Your task to perform on an android device: uninstall "Yahoo Mail" Image 0: 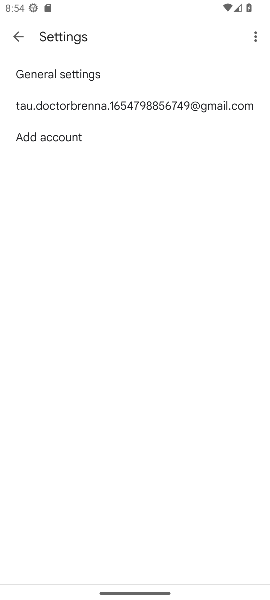
Step 0: drag from (75, 394) to (125, 179)
Your task to perform on an android device: uninstall "Yahoo Mail" Image 1: 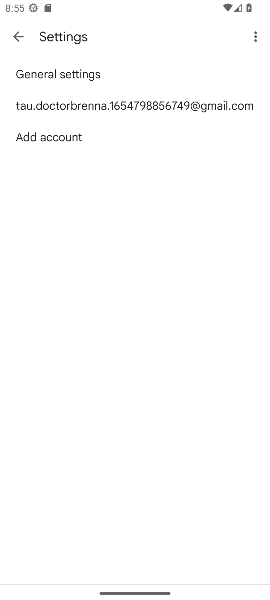
Step 1: drag from (124, 376) to (152, 493)
Your task to perform on an android device: uninstall "Yahoo Mail" Image 2: 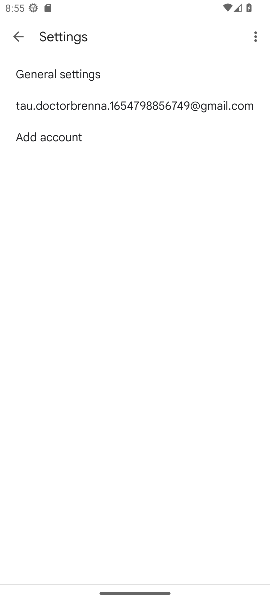
Step 2: press home button
Your task to perform on an android device: uninstall "Yahoo Mail" Image 3: 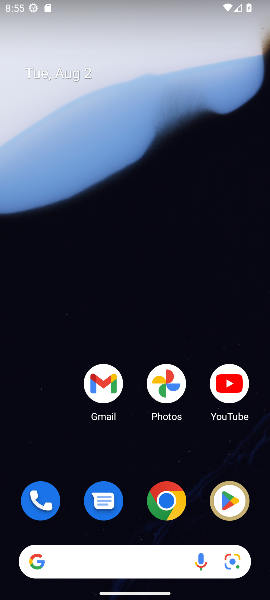
Step 3: click (232, 498)
Your task to perform on an android device: uninstall "Yahoo Mail" Image 4: 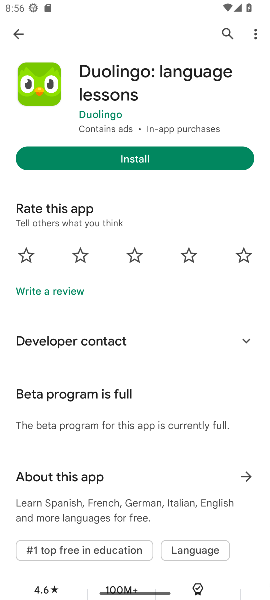
Step 4: drag from (219, 254) to (222, 329)
Your task to perform on an android device: uninstall "Yahoo Mail" Image 5: 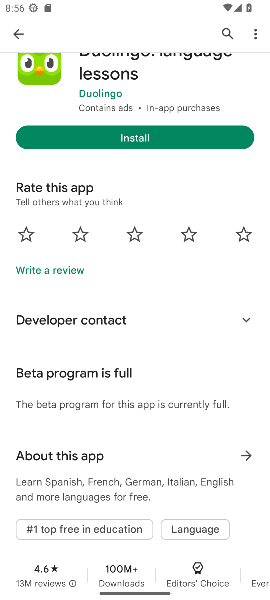
Step 5: drag from (148, 170) to (142, 597)
Your task to perform on an android device: uninstall "Yahoo Mail" Image 6: 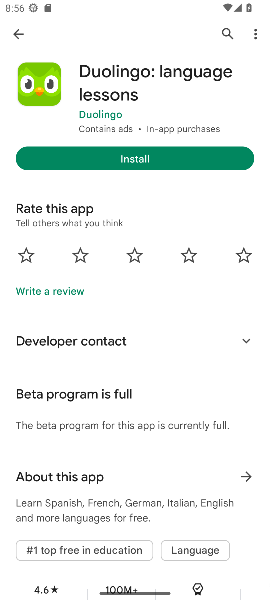
Step 6: drag from (151, 94) to (193, 450)
Your task to perform on an android device: uninstall "Yahoo Mail" Image 7: 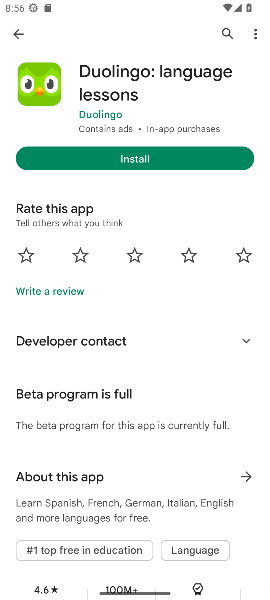
Step 7: drag from (189, 112) to (232, 499)
Your task to perform on an android device: uninstall "Yahoo Mail" Image 8: 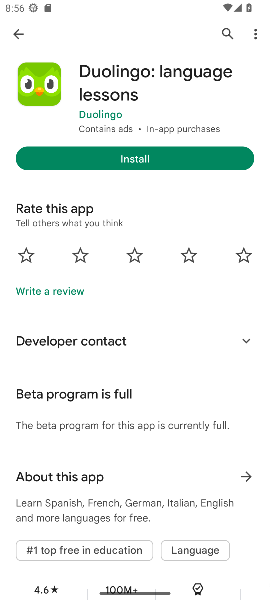
Step 8: drag from (154, 145) to (101, 60)
Your task to perform on an android device: uninstall "Yahoo Mail" Image 9: 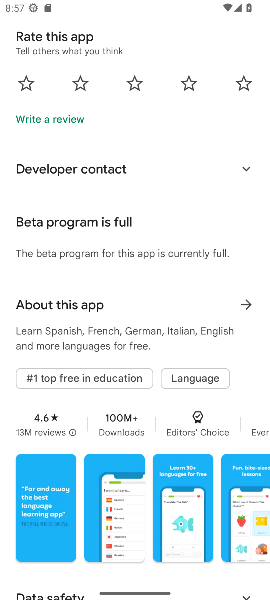
Step 9: drag from (97, 522) to (170, 337)
Your task to perform on an android device: uninstall "Yahoo Mail" Image 10: 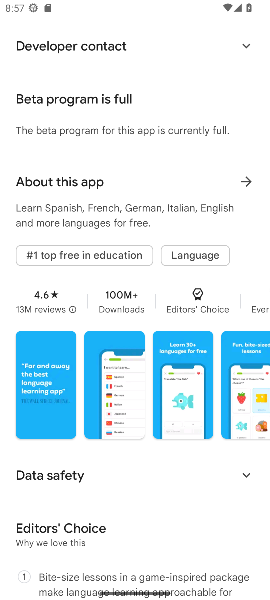
Step 10: drag from (154, 108) to (171, 592)
Your task to perform on an android device: uninstall "Yahoo Mail" Image 11: 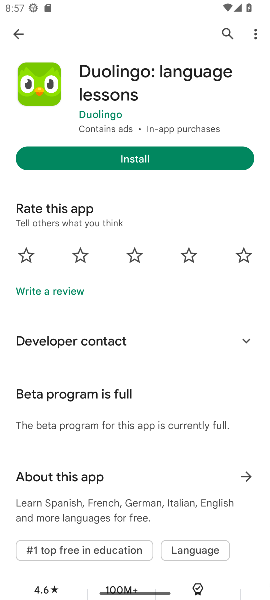
Step 11: drag from (192, 188) to (183, 425)
Your task to perform on an android device: uninstall "Yahoo Mail" Image 12: 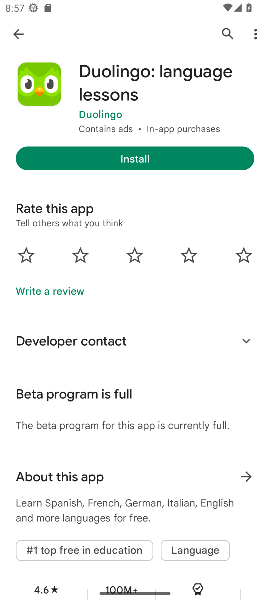
Step 12: click (231, 30)
Your task to perform on an android device: uninstall "Yahoo Mail" Image 13: 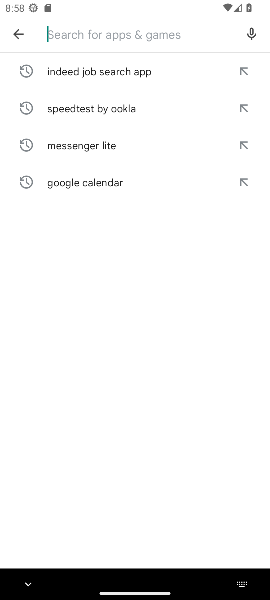
Step 13: drag from (129, 412) to (167, 152)
Your task to perform on an android device: uninstall "Yahoo Mail" Image 14: 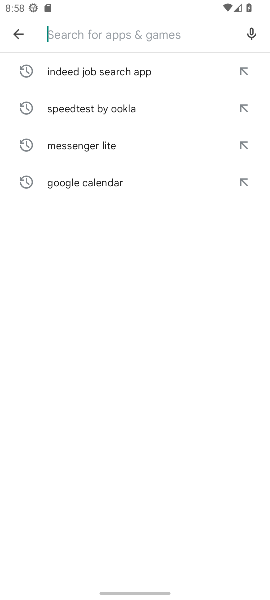
Step 14: click (106, 38)
Your task to perform on an android device: uninstall "Yahoo Mail" Image 15: 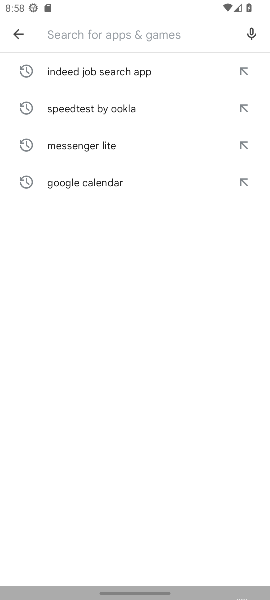
Step 15: click (101, 30)
Your task to perform on an android device: uninstall "Yahoo Mail" Image 16: 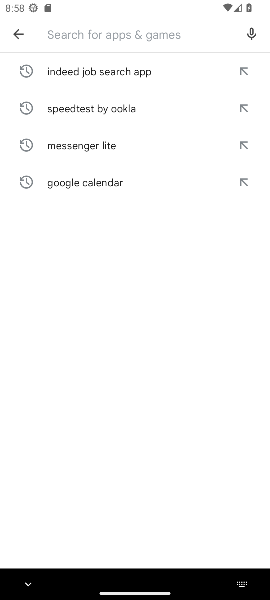
Step 16: type "Yahoo Mail"
Your task to perform on an android device: uninstall "Yahoo Mail" Image 17: 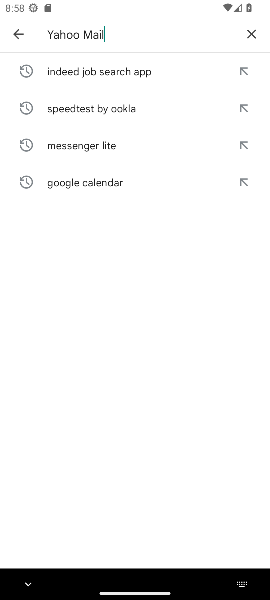
Step 17: type ""
Your task to perform on an android device: uninstall "Yahoo Mail" Image 18: 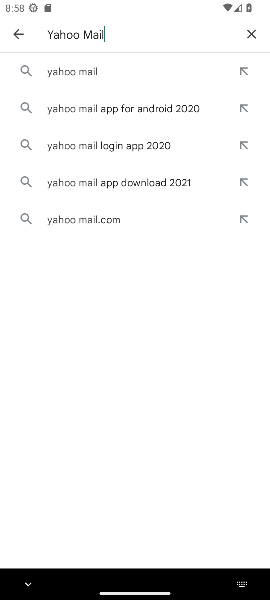
Step 18: click (63, 74)
Your task to perform on an android device: uninstall "Yahoo Mail" Image 19: 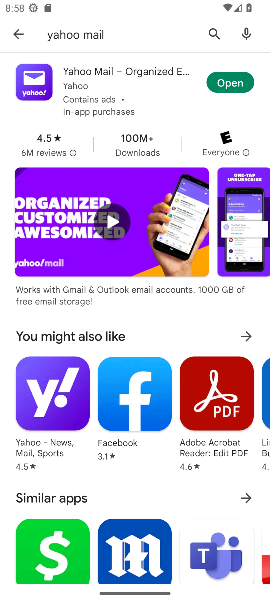
Step 19: click (82, 85)
Your task to perform on an android device: uninstall "Yahoo Mail" Image 20: 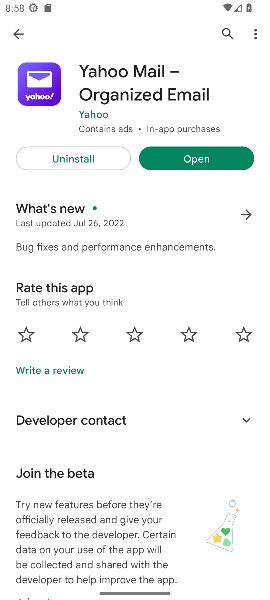
Step 20: click (49, 160)
Your task to perform on an android device: uninstall "Yahoo Mail" Image 21: 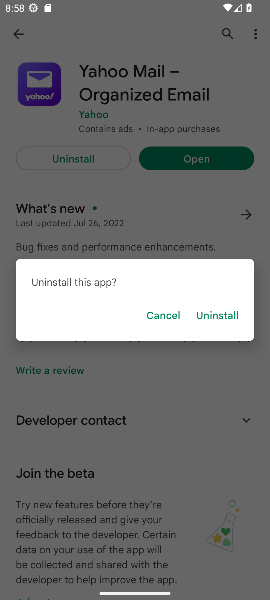
Step 21: click (216, 319)
Your task to perform on an android device: uninstall "Yahoo Mail" Image 22: 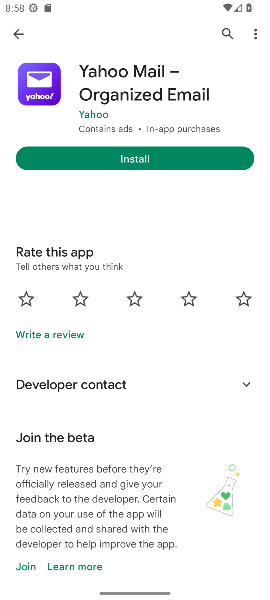
Step 22: task complete